Your task to perform on an android device: What's the weather going to be this weekend? Image 0: 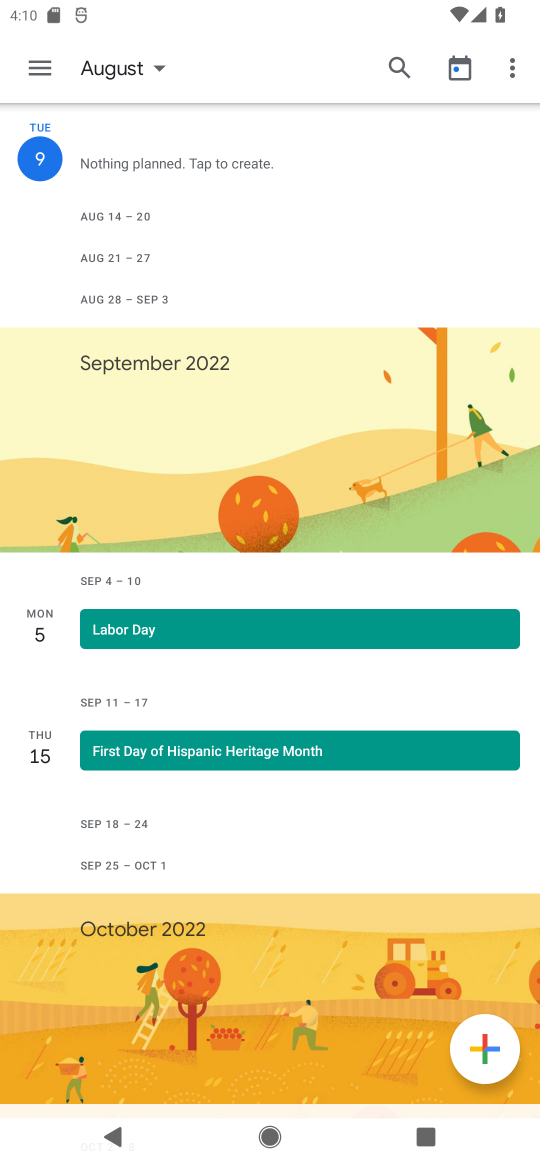
Step 0: press home button
Your task to perform on an android device: What's the weather going to be this weekend? Image 1: 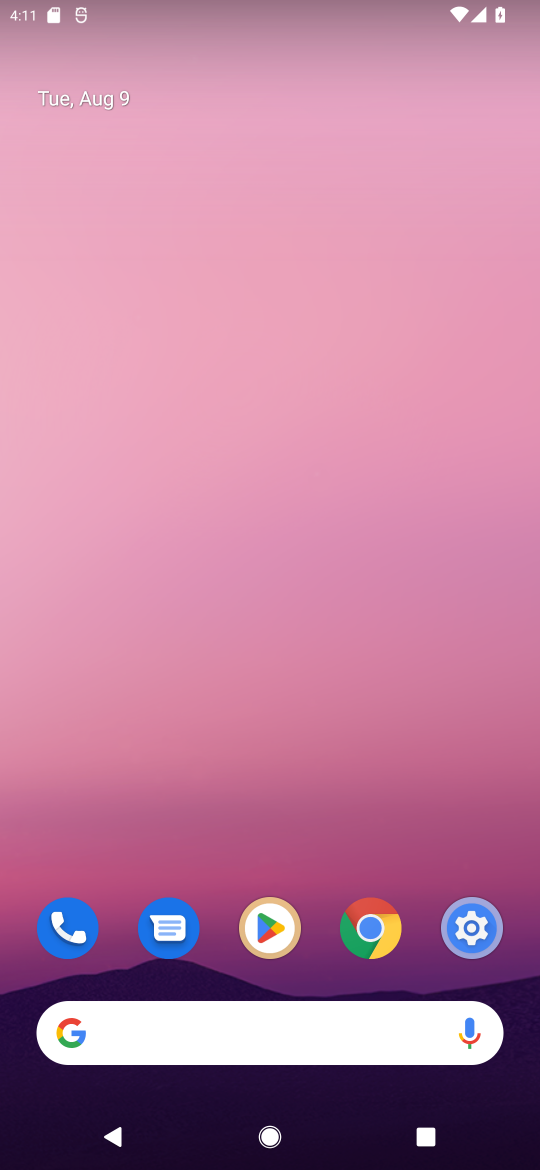
Step 1: click (188, 1039)
Your task to perform on an android device: What's the weather going to be this weekend? Image 2: 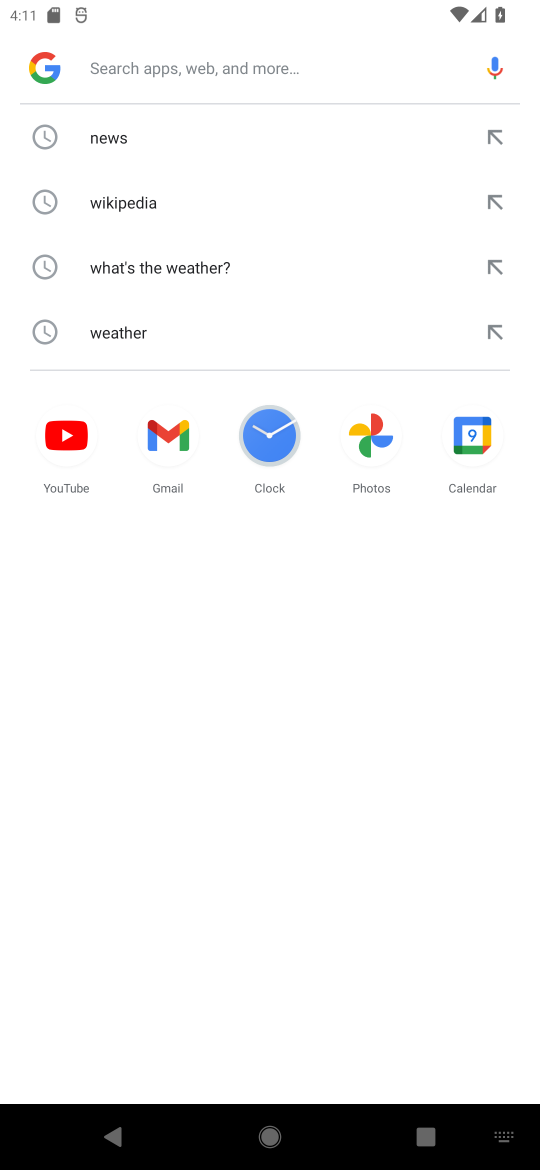
Step 2: type "what's the weather going to be this weekend"
Your task to perform on an android device: What's the weather going to be this weekend? Image 3: 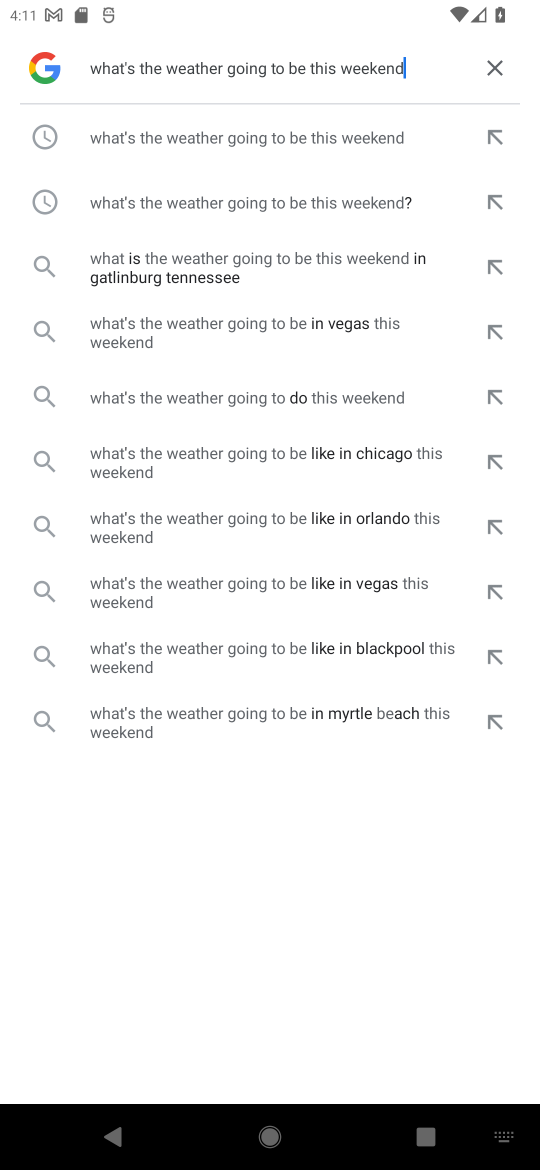
Step 3: click (286, 136)
Your task to perform on an android device: What's the weather going to be this weekend? Image 4: 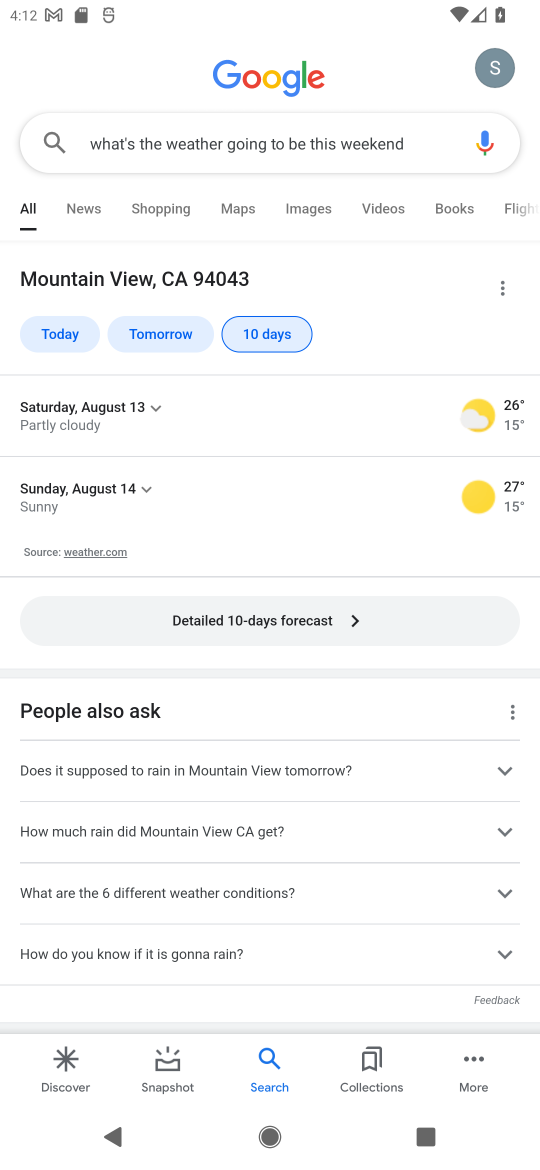
Step 4: task complete